Your task to perform on an android device: check the backup settings in the google photos Image 0: 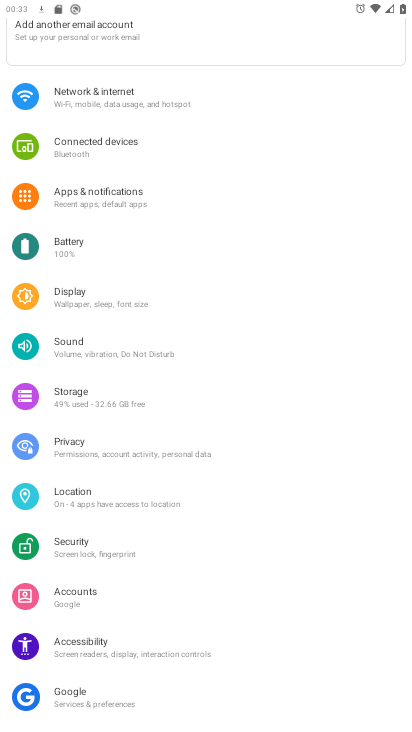
Step 0: press home button
Your task to perform on an android device: check the backup settings in the google photos Image 1: 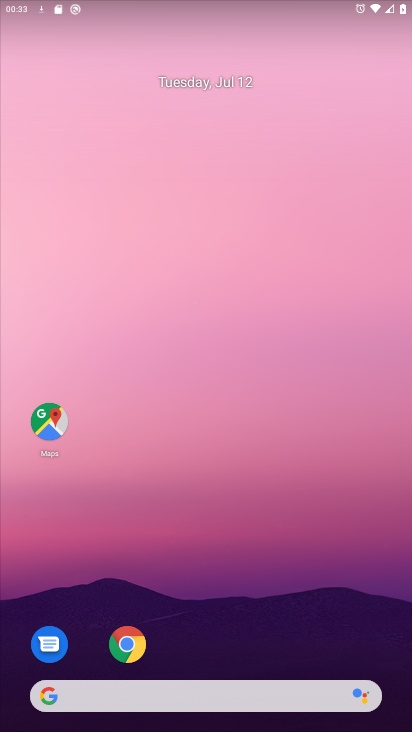
Step 1: drag from (294, 630) to (304, 360)
Your task to perform on an android device: check the backup settings in the google photos Image 2: 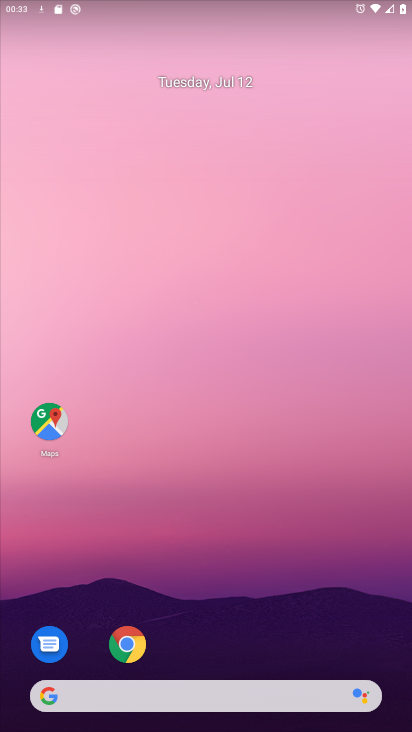
Step 2: drag from (206, 704) to (204, 397)
Your task to perform on an android device: check the backup settings in the google photos Image 3: 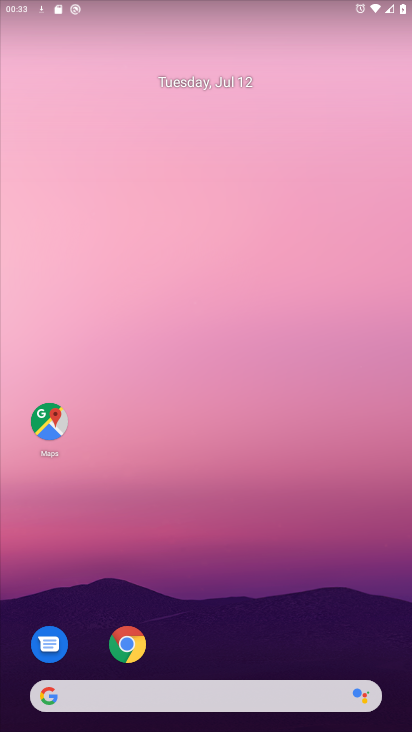
Step 3: drag from (174, 648) to (195, 312)
Your task to perform on an android device: check the backup settings in the google photos Image 4: 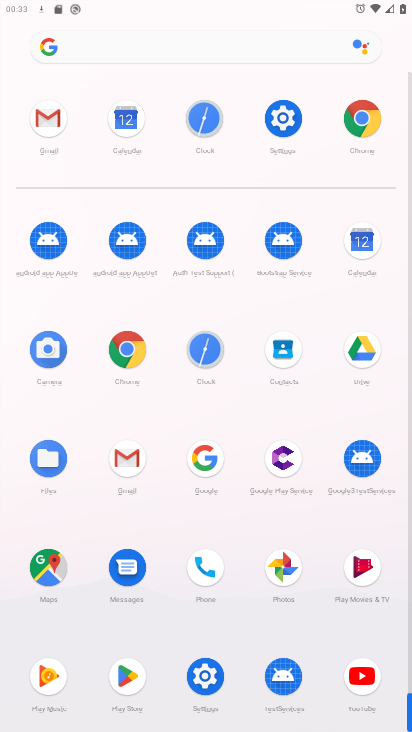
Step 4: click (275, 572)
Your task to perform on an android device: check the backup settings in the google photos Image 5: 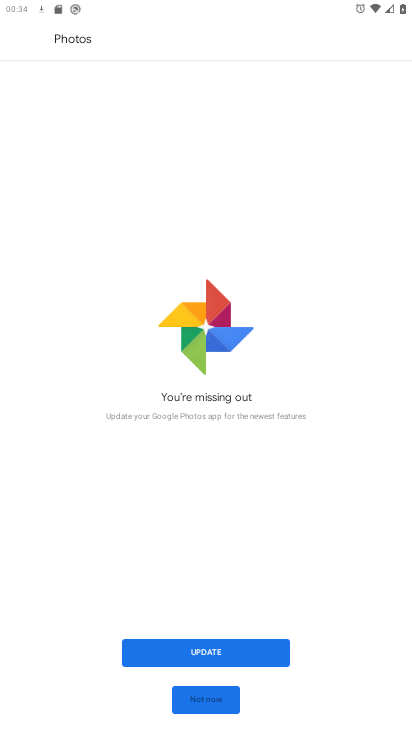
Step 5: click (208, 707)
Your task to perform on an android device: check the backup settings in the google photos Image 6: 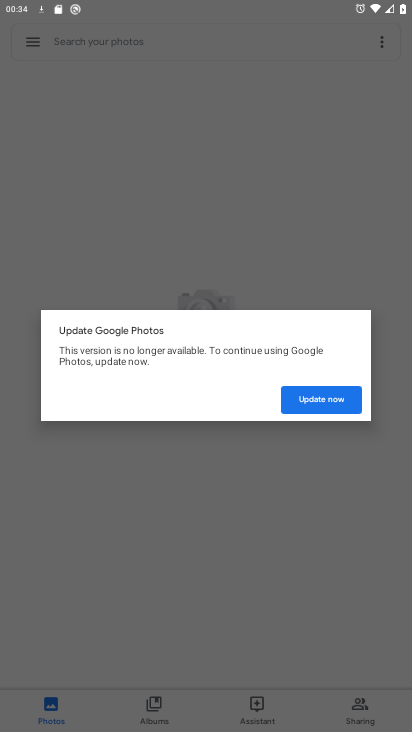
Step 6: click (301, 393)
Your task to perform on an android device: check the backup settings in the google photos Image 7: 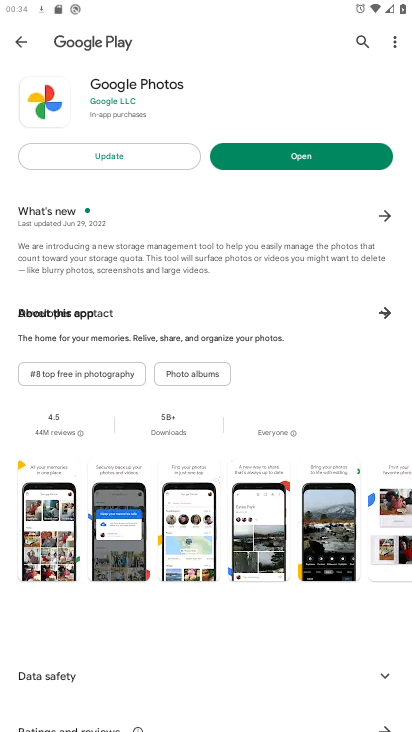
Step 7: press back button
Your task to perform on an android device: check the backup settings in the google photos Image 8: 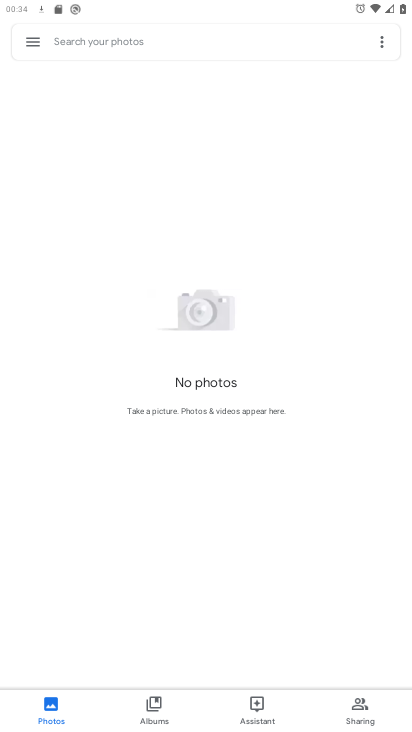
Step 8: click (23, 36)
Your task to perform on an android device: check the backup settings in the google photos Image 9: 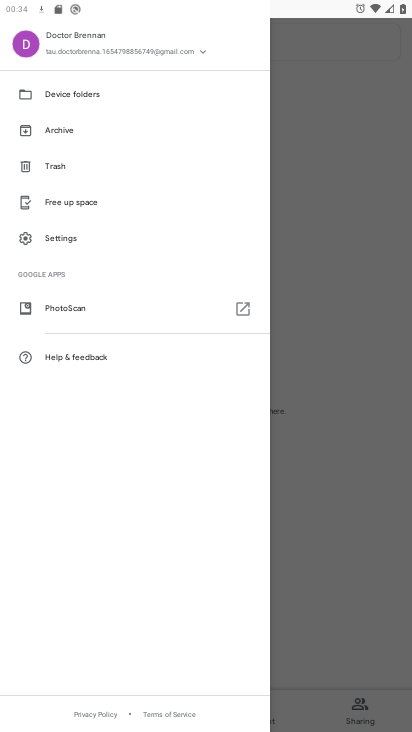
Step 9: click (77, 238)
Your task to perform on an android device: check the backup settings in the google photos Image 10: 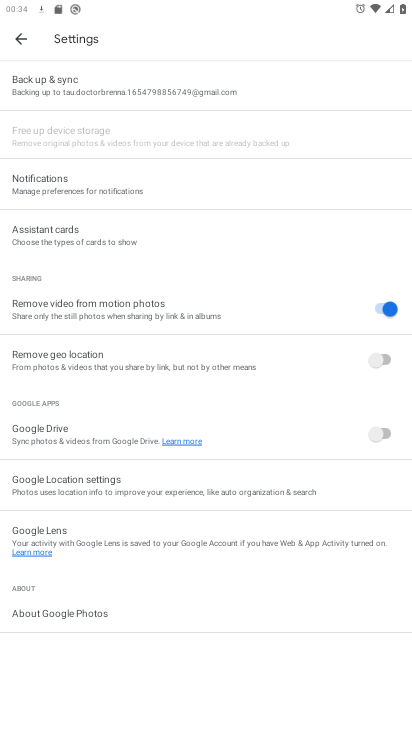
Step 10: click (93, 74)
Your task to perform on an android device: check the backup settings in the google photos Image 11: 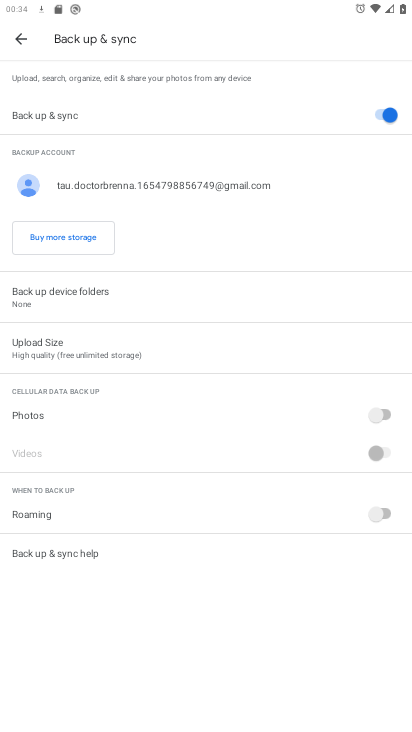
Step 11: task complete